Your task to perform on an android device: What is the recent news? Image 0: 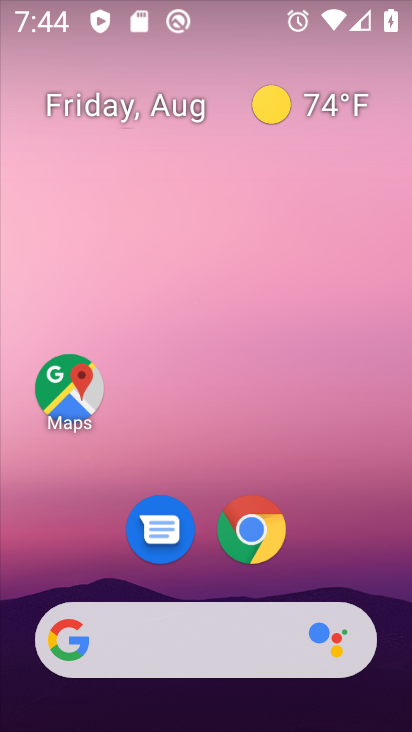
Step 0: drag from (166, 655) to (226, 48)
Your task to perform on an android device: What is the recent news? Image 1: 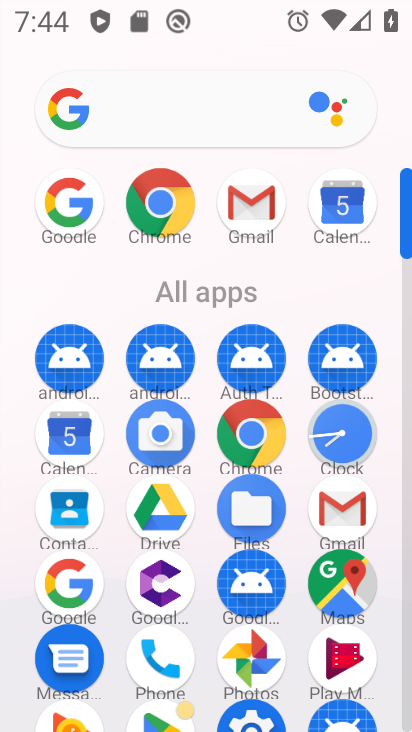
Step 1: click (65, 205)
Your task to perform on an android device: What is the recent news? Image 2: 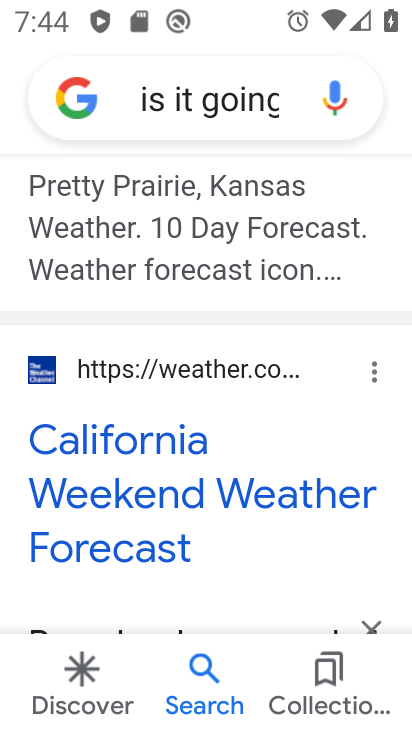
Step 2: click (289, 100)
Your task to perform on an android device: What is the recent news? Image 3: 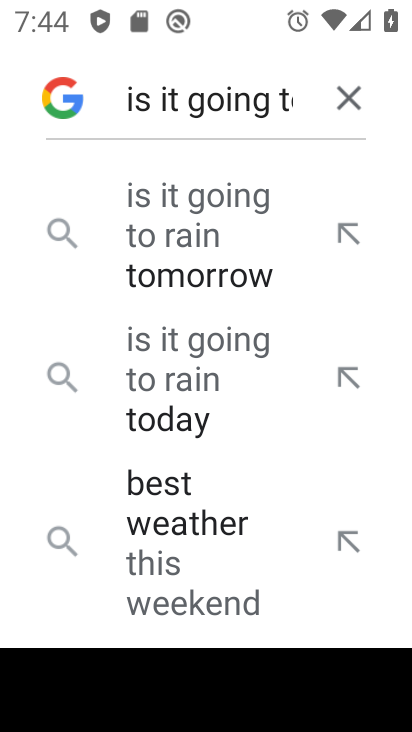
Step 3: click (353, 103)
Your task to perform on an android device: What is the recent news? Image 4: 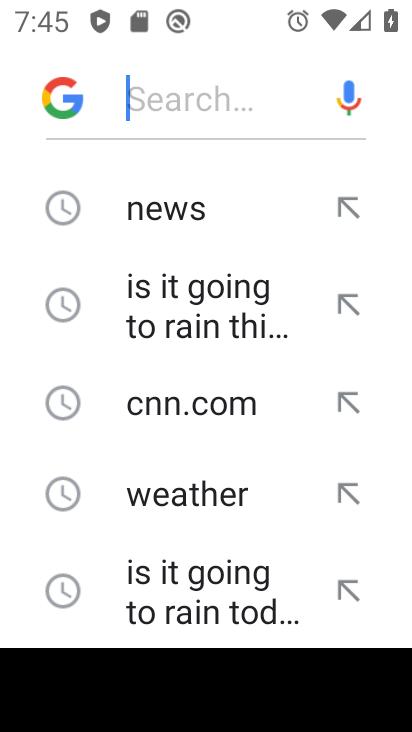
Step 4: type "recent news"
Your task to perform on an android device: What is the recent news? Image 5: 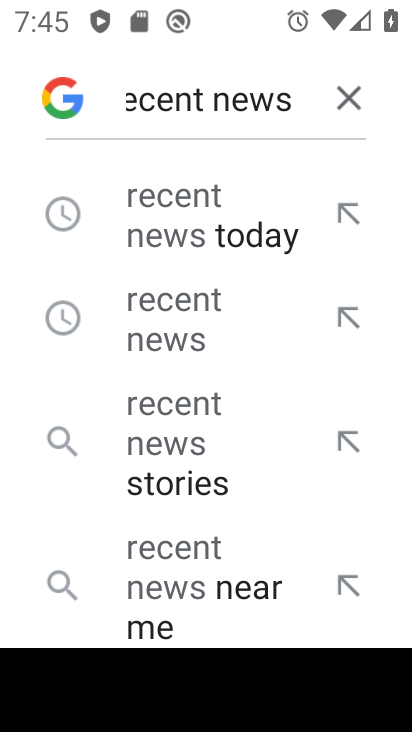
Step 5: click (261, 237)
Your task to perform on an android device: What is the recent news? Image 6: 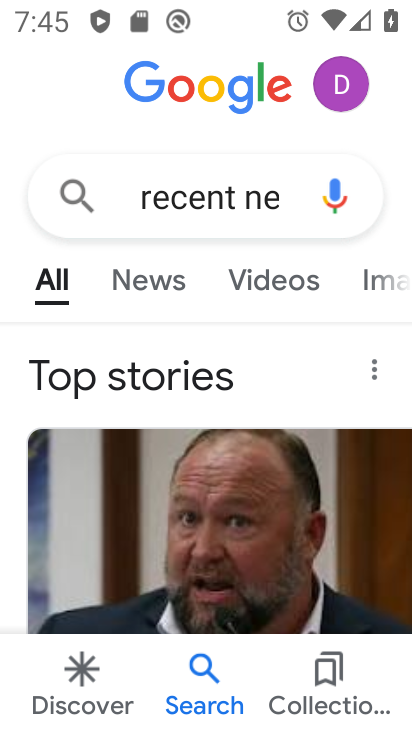
Step 6: click (230, 498)
Your task to perform on an android device: What is the recent news? Image 7: 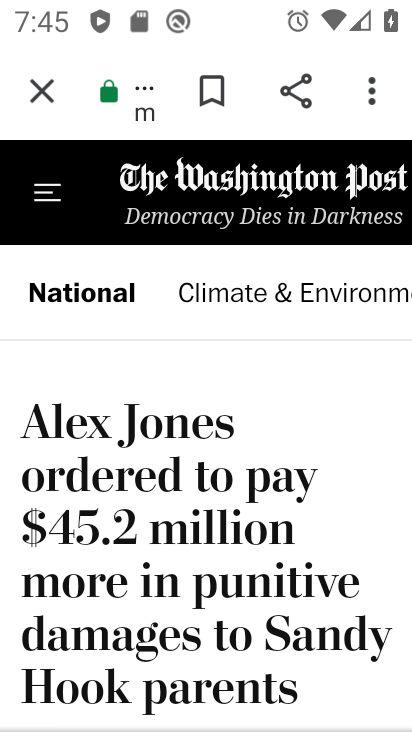
Step 7: task complete